Your task to perform on an android device: What's the weather? Image 0: 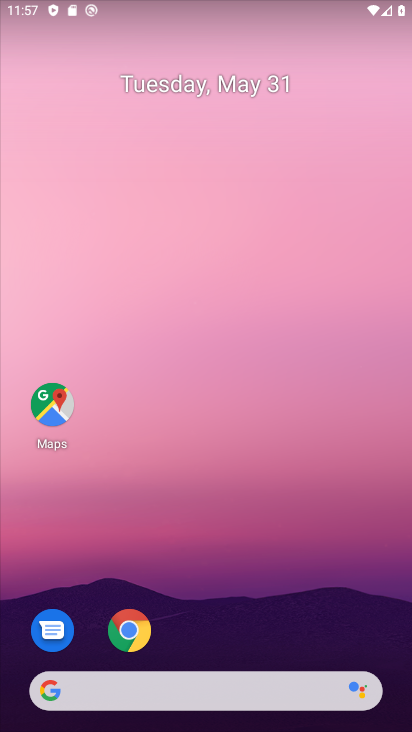
Step 0: drag from (220, 648) to (238, 259)
Your task to perform on an android device: What's the weather? Image 1: 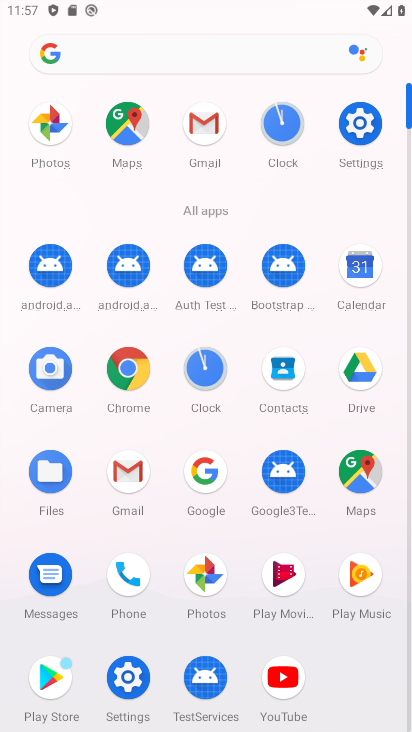
Step 1: click (114, 364)
Your task to perform on an android device: What's the weather? Image 2: 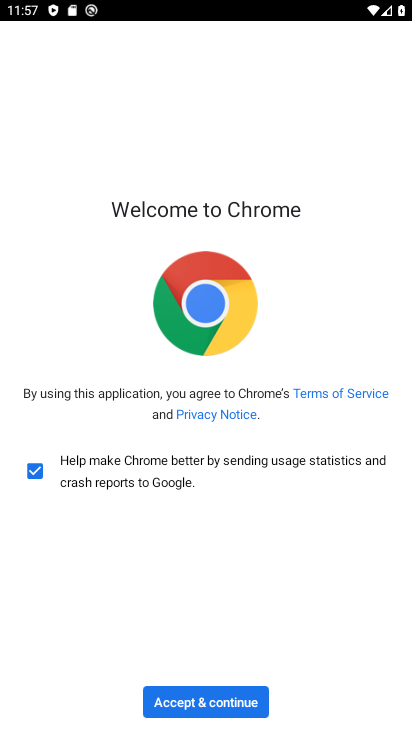
Step 2: click (211, 703)
Your task to perform on an android device: What's the weather? Image 3: 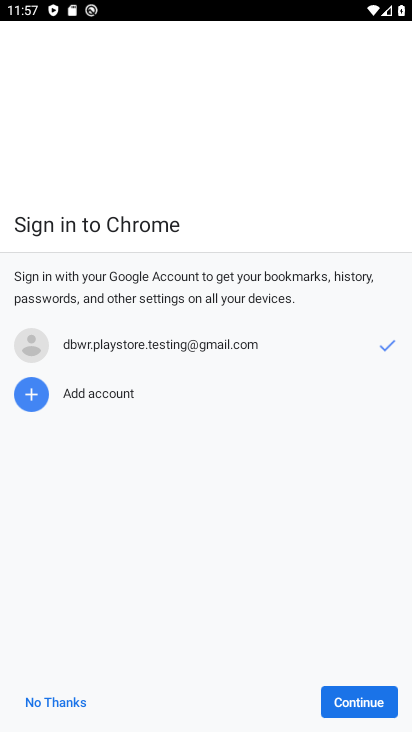
Step 3: click (349, 693)
Your task to perform on an android device: What's the weather? Image 4: 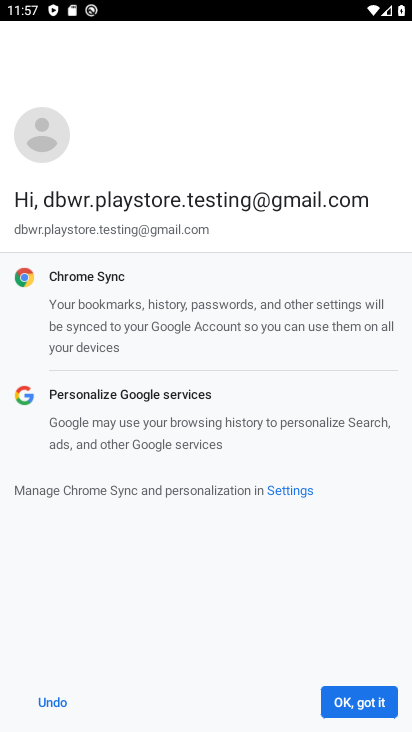
Step 4: click (355, 693)
Your task to perform on an android device: What's the weather? Image 5: 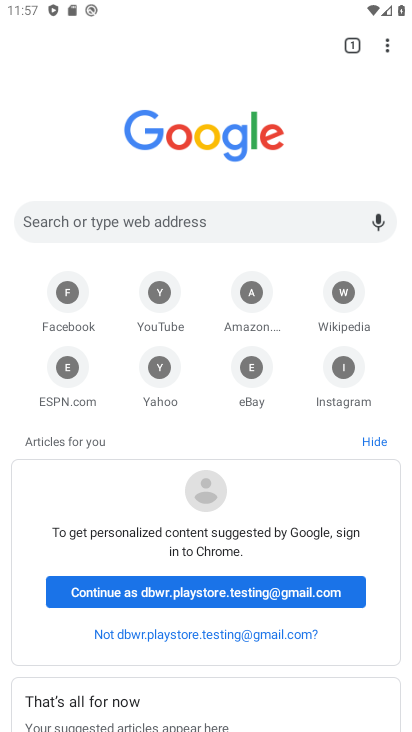
Step 5: click (184, 46)
Your task to perform on an android device: What's the weather? Image 6: 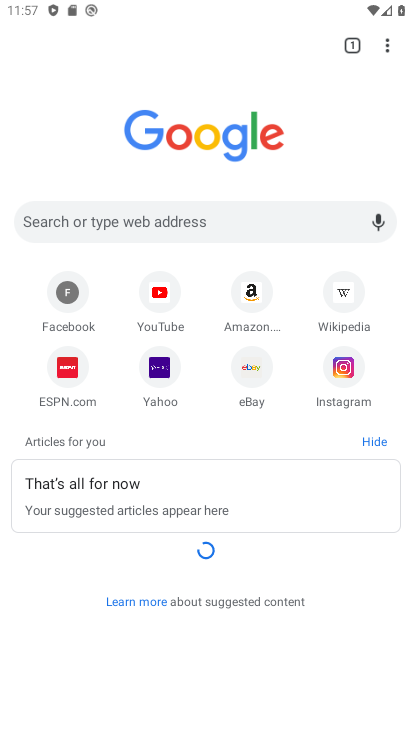
Step 6: type "What's the weather?"
Your task to perform on an android device: What's the weather? Image 7: 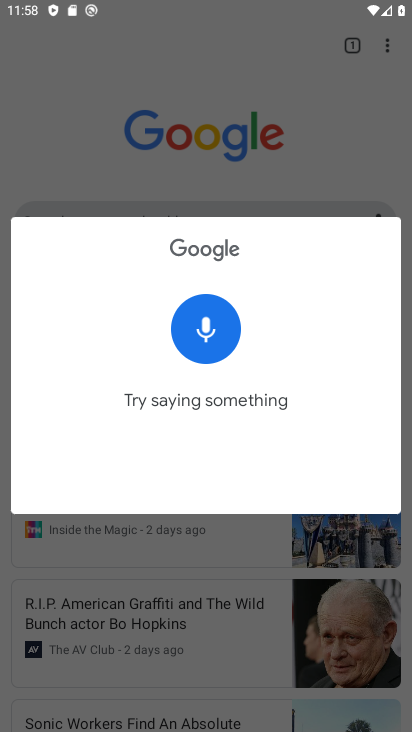
Step 7: task complete